Your task to perform on an android device: Go to location settings Image 0: 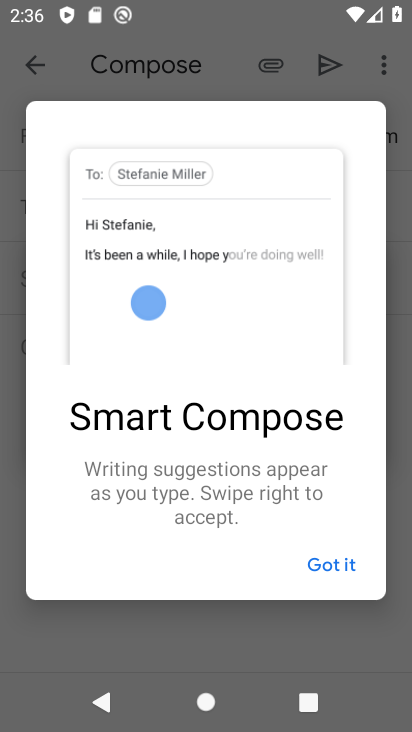
Step 0: press home button
Your task to perform on an android device: Go to location settings Image 1: 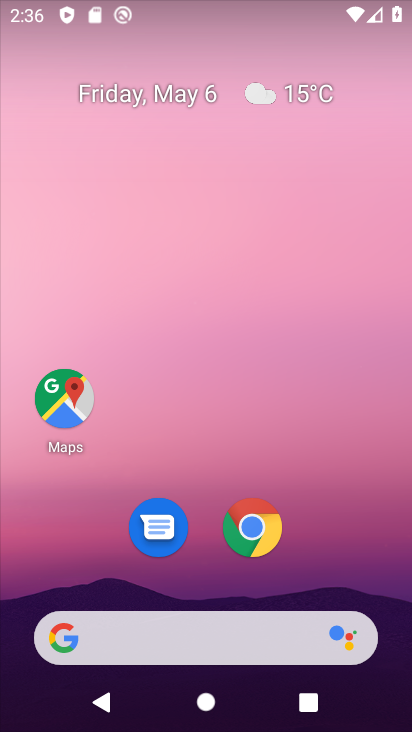
Step 1: drag from (196, 591) to (187, 262)
Your task to perform on an android device: Go to location settings Image 2: 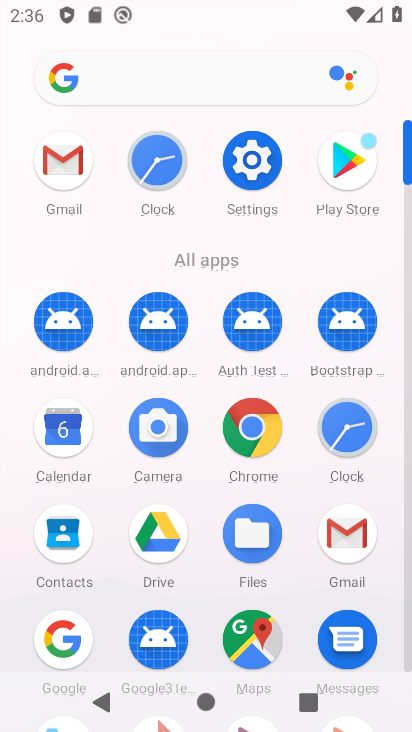
Step 2: click (252, 155)
Your task to perform on an android device: Go to location settings Image 3: 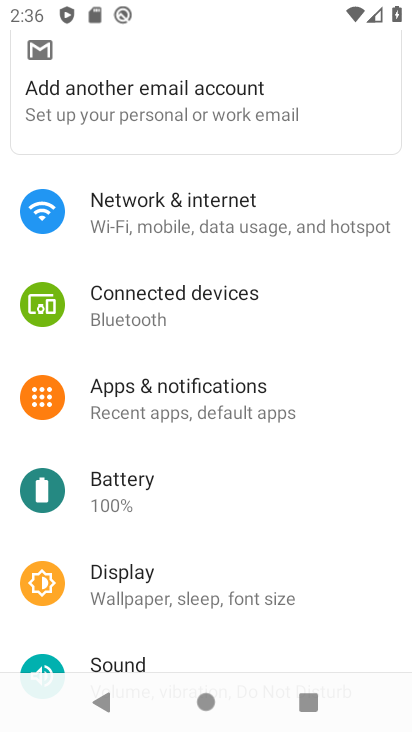
Step 3: drag from (252, 538) to (231, 204)
Your task to perform on an android device: Go to location settings Image 4: 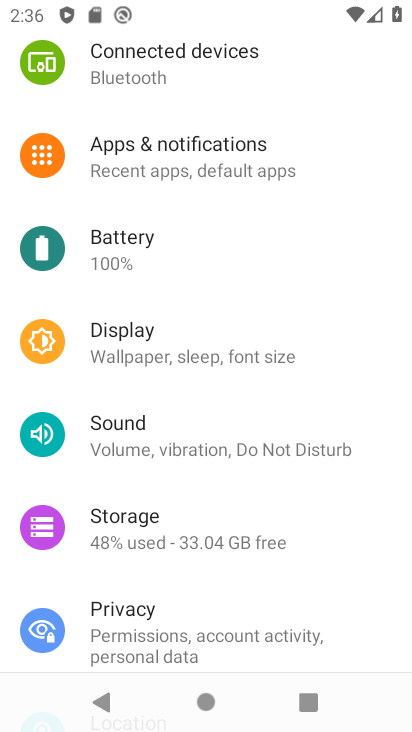
Step 4: drag from (264, 511) to (281, 226)
Your task to perform on an android device: Go to location settings Image 5: 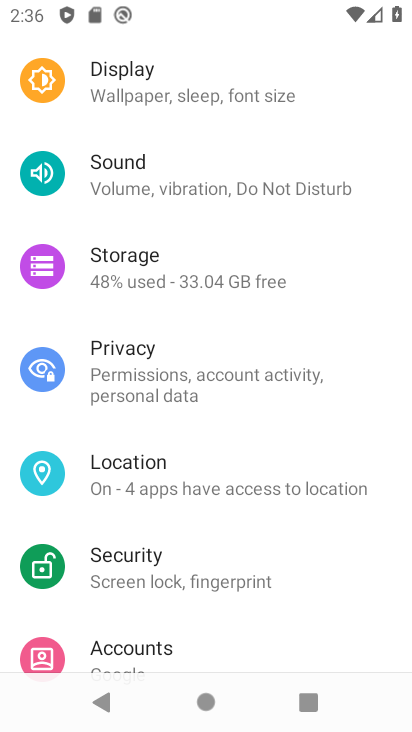
Step 5: click (175, 475)
Your task to perform on an android device: Go to location settings Image 6: 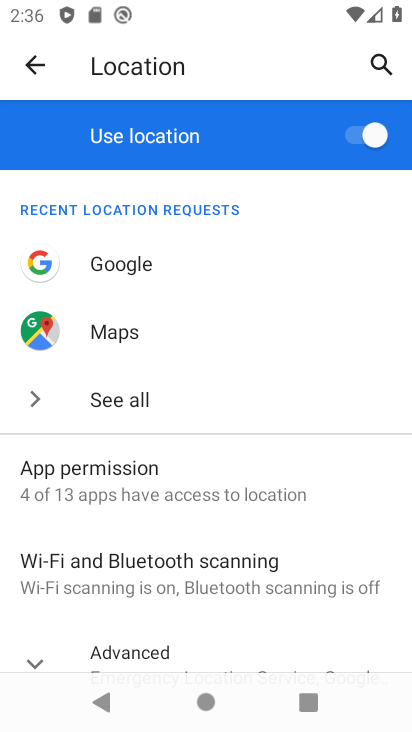
Step 6: task complete